Your task to perform on an android device: set an alarm Image 0: 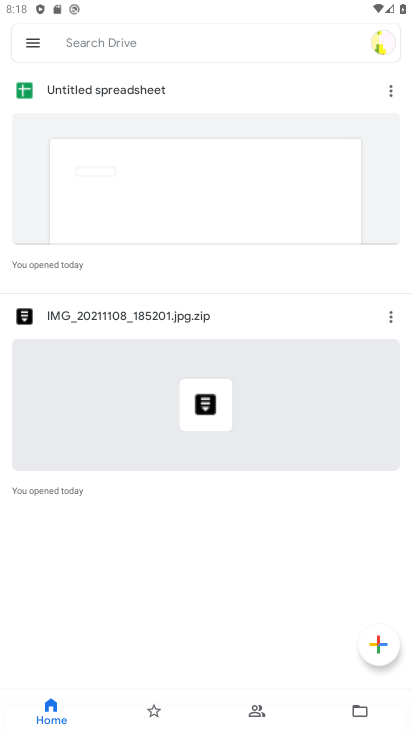
Step 0: press home button
Your task to perform on an android device: set an alarm Image 1: 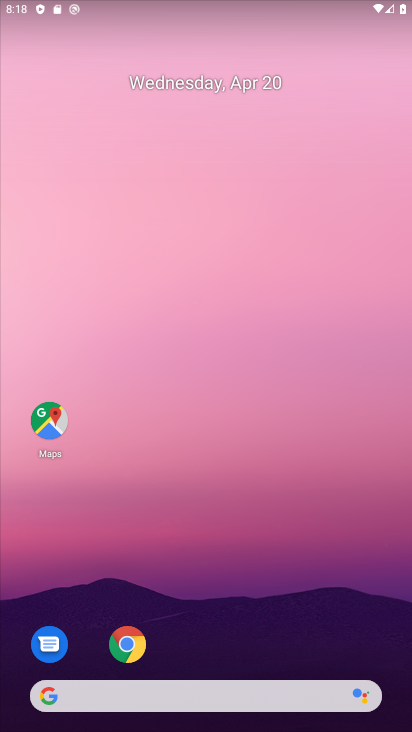
Step 1: drag from (300, 508) to (277, 2)
Your task to perform on an android device: set an alarm Image 2: 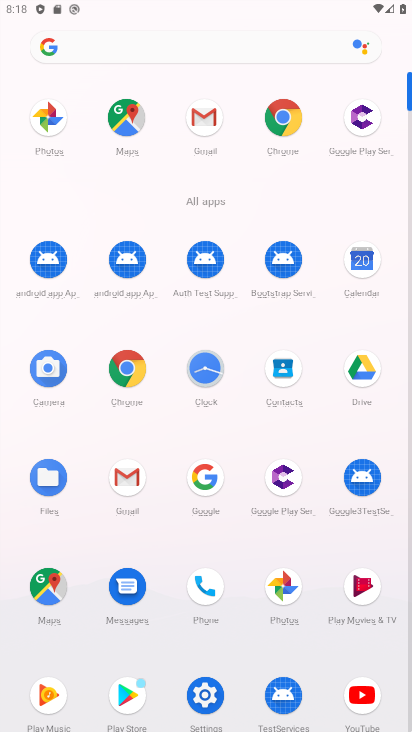
Step 2: click (211, 364)
Your task to perform on an android device: set an alarm Image 3: 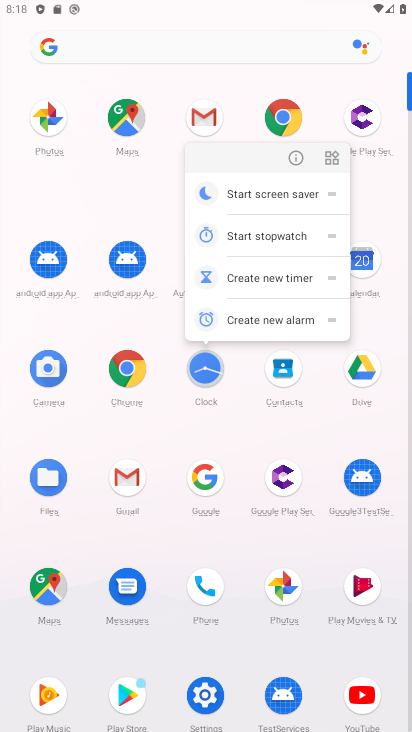
Step 3: click (211, 364)
Your task to perform on an android device: set an alarm Image 4: 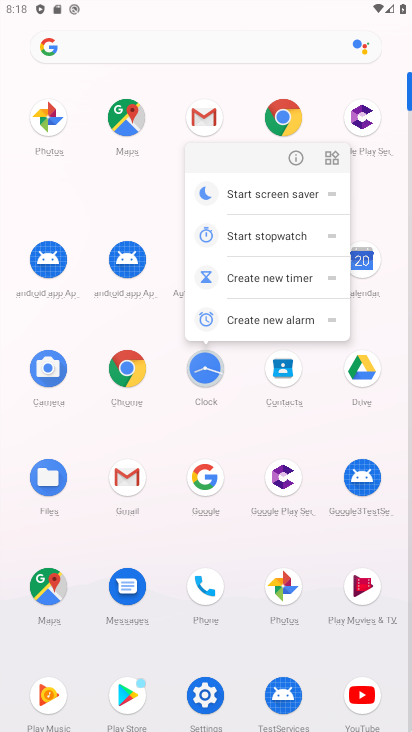
Step 4: drag from (211, 364) to (256, 396)
Your task to perform on an android device: set an alarm Image 5: 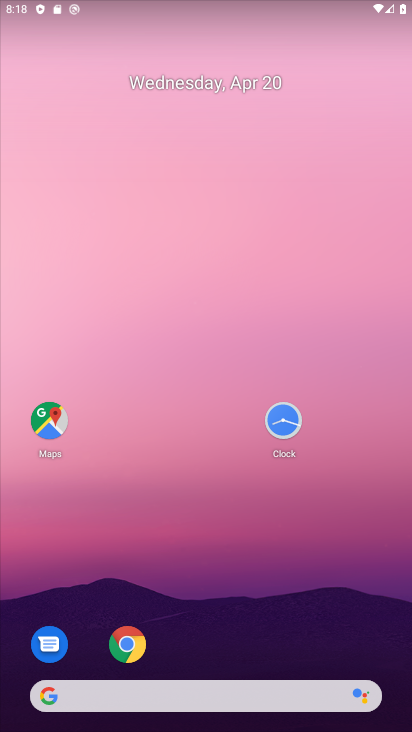
Step 5: click (334, 515)
Your task to perform on an android device: set an alarm Image 6: 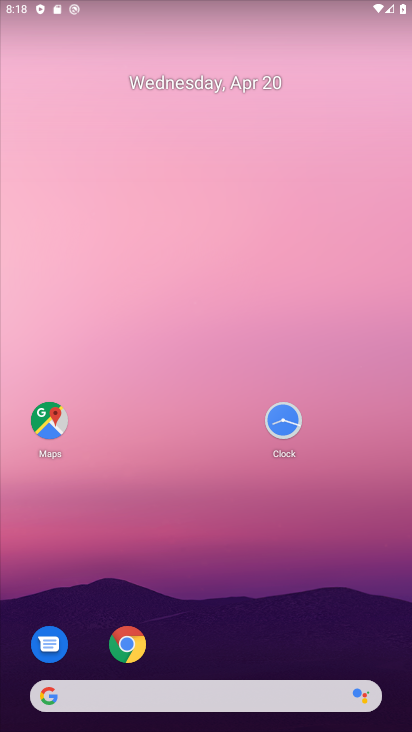
Step 6: drag from (313, 655) to (232, 4)
Your task to perform on an android device: set an alarm Image 7: 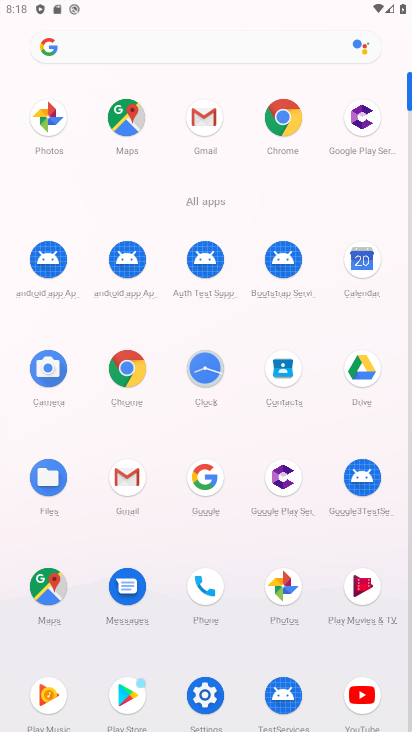
Step 7: click (209, 370)
Your task to perform on an android device: set an alarm Image 8: 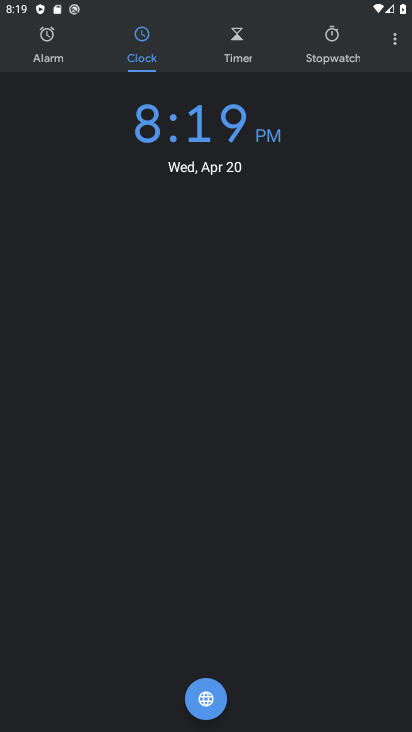
Step 8: click (41, 56)
Your task to perform on an android device: set an alarm Image 9: 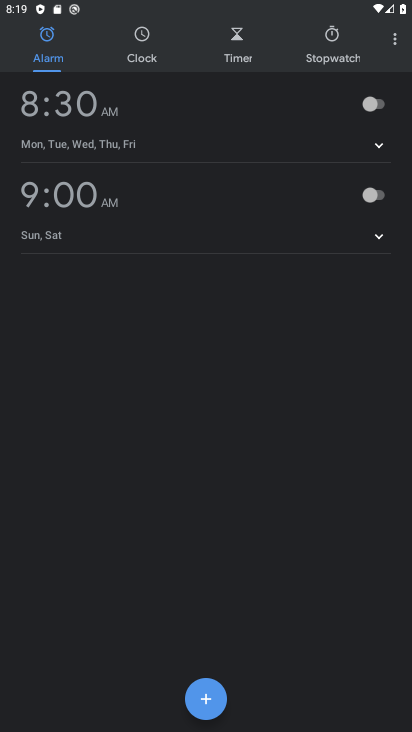
Step 9: click (375, 106)
Your task to perform on an android device: set an alarm Image 10: 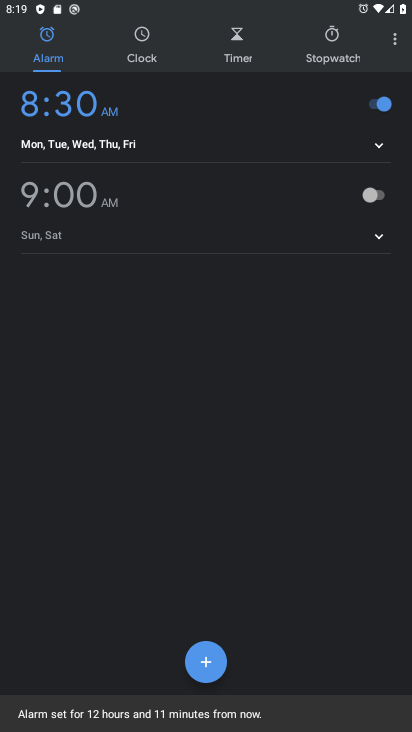
Step 10: task complete